Your task to perform on an android device: See recent photos Image 0: 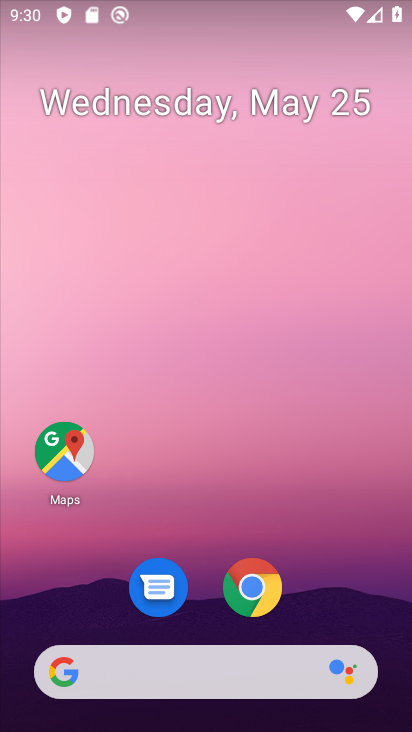
Step 0: drag from (216, 598) to (140, 4)
Your task to perform on an android device: See recent photos Image 1: 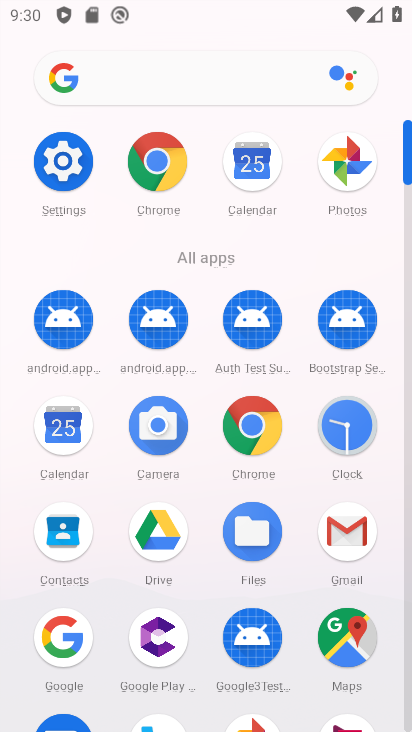
Step 1: drag from (305, 589) to (296, 371)
Your task to perform on an android device: See recent photos Image 2: 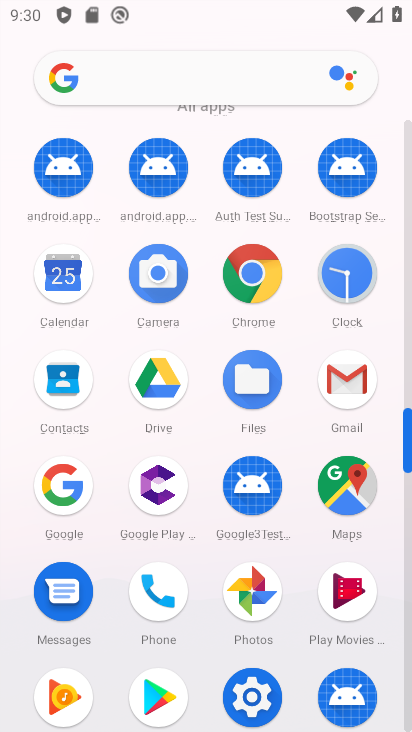
Step 2: click (258, 608)
Your task to perform on an android device: See recent photos Image 3: 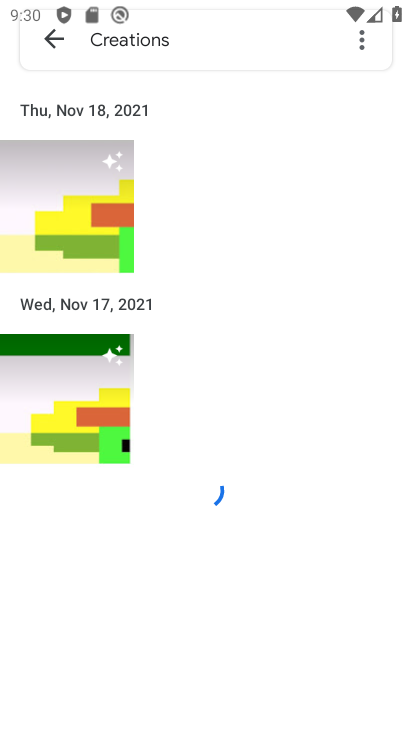
Step 3: click (52, 44)
Your task to perform on an android device: See recent photos Image 4: 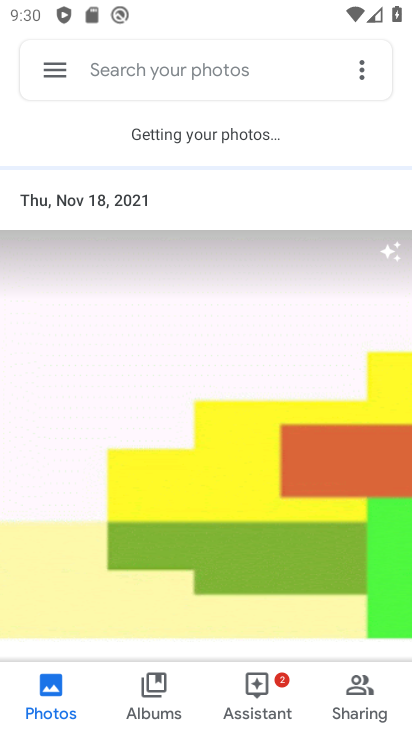
Step 4: task complete